Your task to perform on an android device: Add "razer blade" to the cart on costco.com, then select checkout. Image 0: 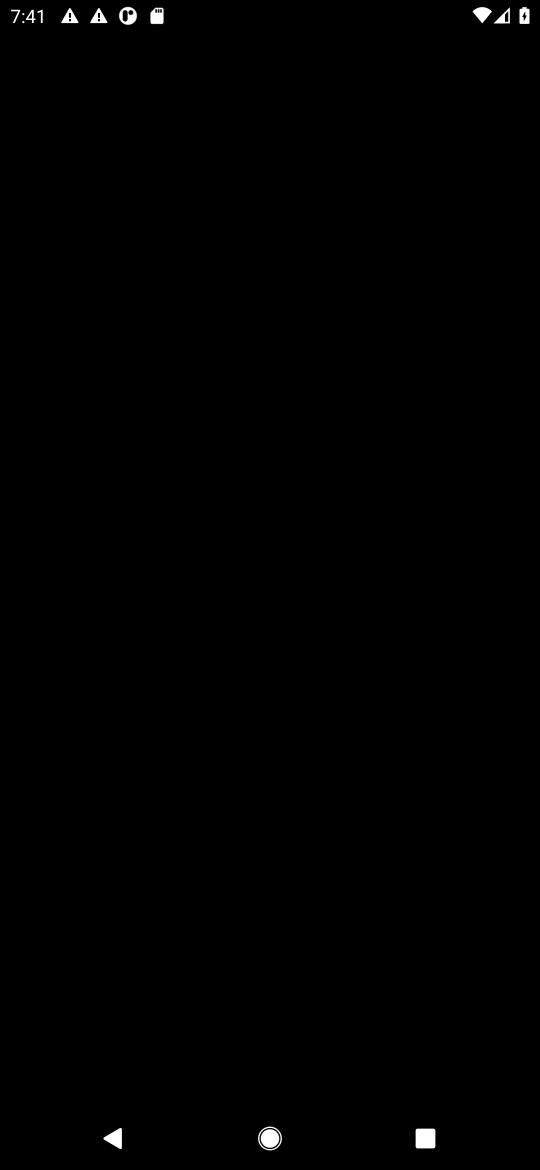
Step 0: press home button
Your task to perform on an android device: Add "razer blade" to the cart on costco.com, then select checkout. Image 1: 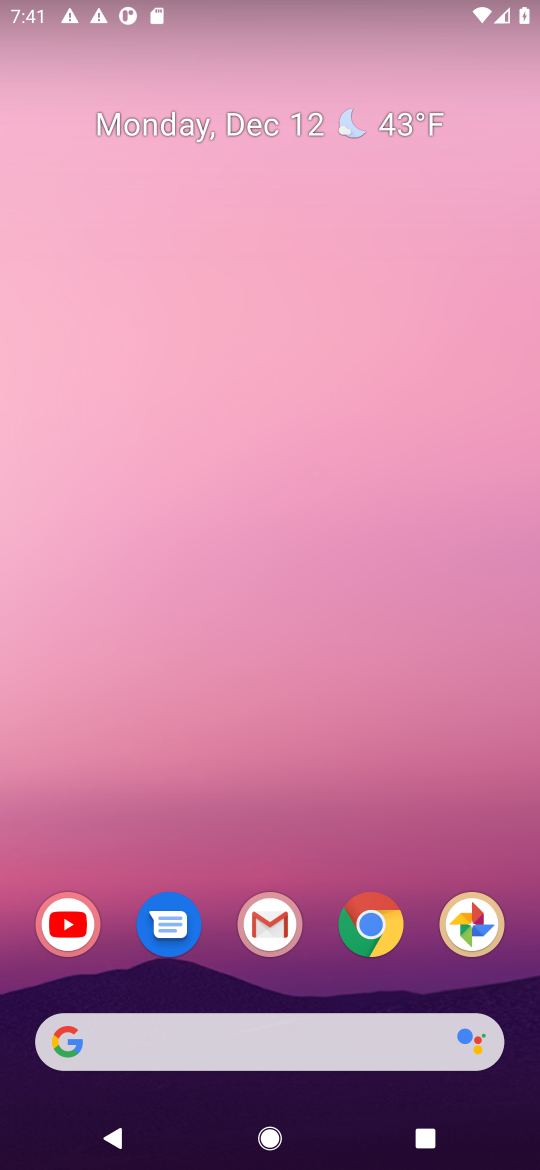
Step 1: drag from (259, 920) to (262, 379)
Your task to perform on an android device: Add "razer blade" to the cart on costco.com, then select checkout. Image 2: 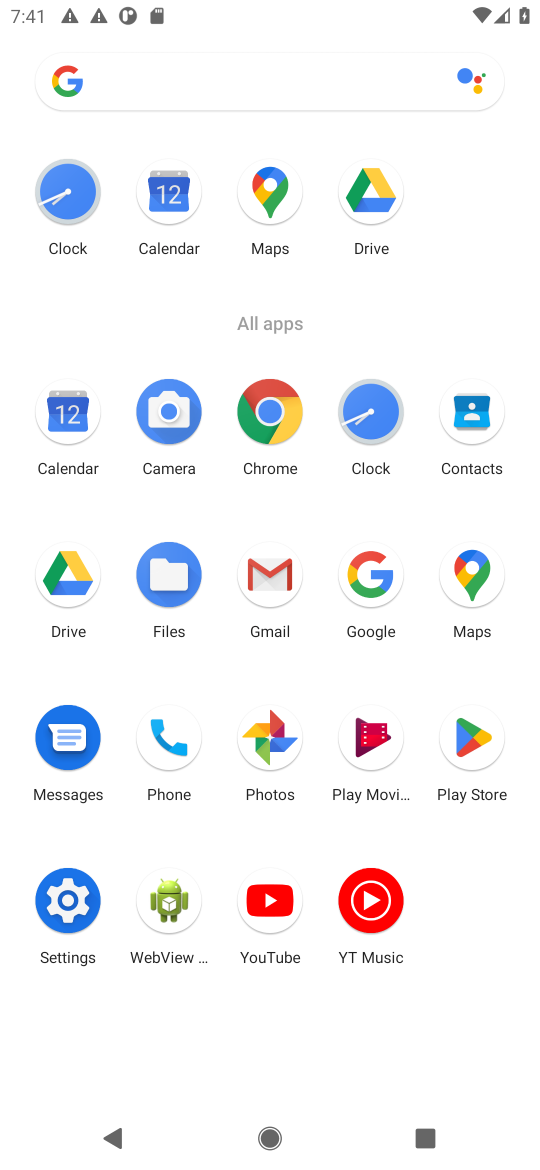
Step 2: click (375, 594)
Your task to perform on an android device: Add "razer blade" to the cart on costco.com, then select checkout. Image 3: 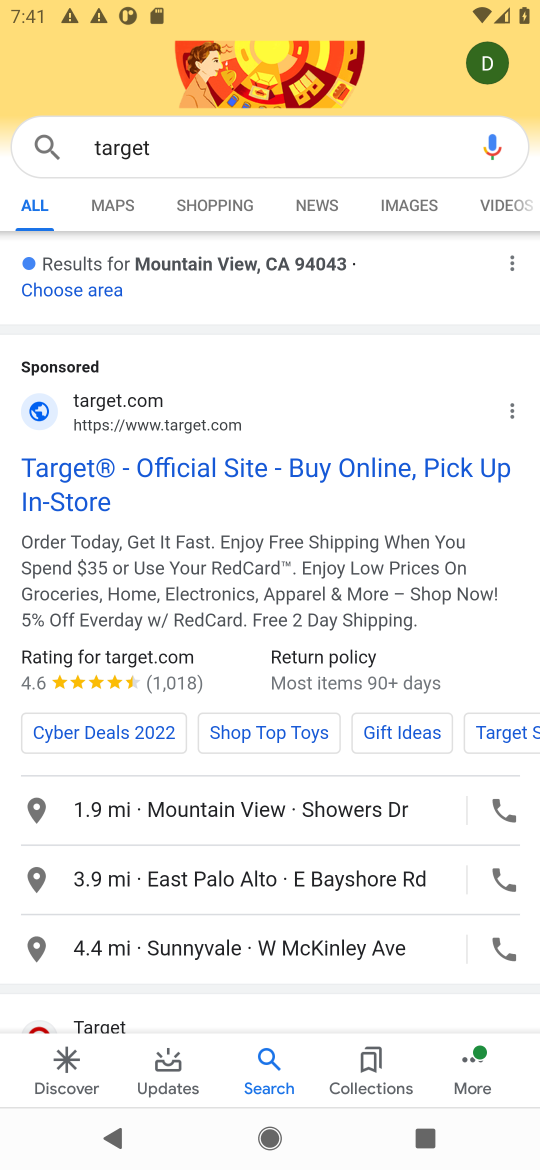
Step 3: click (348, 151)
Your task to perform on an android device: Add "razer blade" to the cart on costco.com, then select checkout. Image 4: 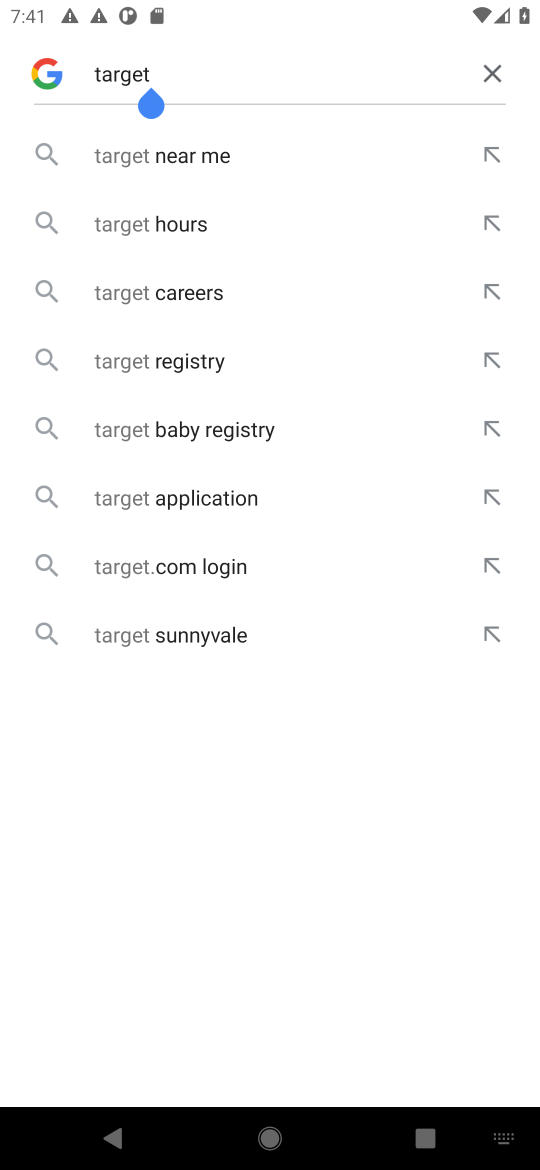
Step 4: click (499, 76)
Your task to perform on an android device: Add "razer blade" to the cart on costco.com, then select checkout. Image 5: 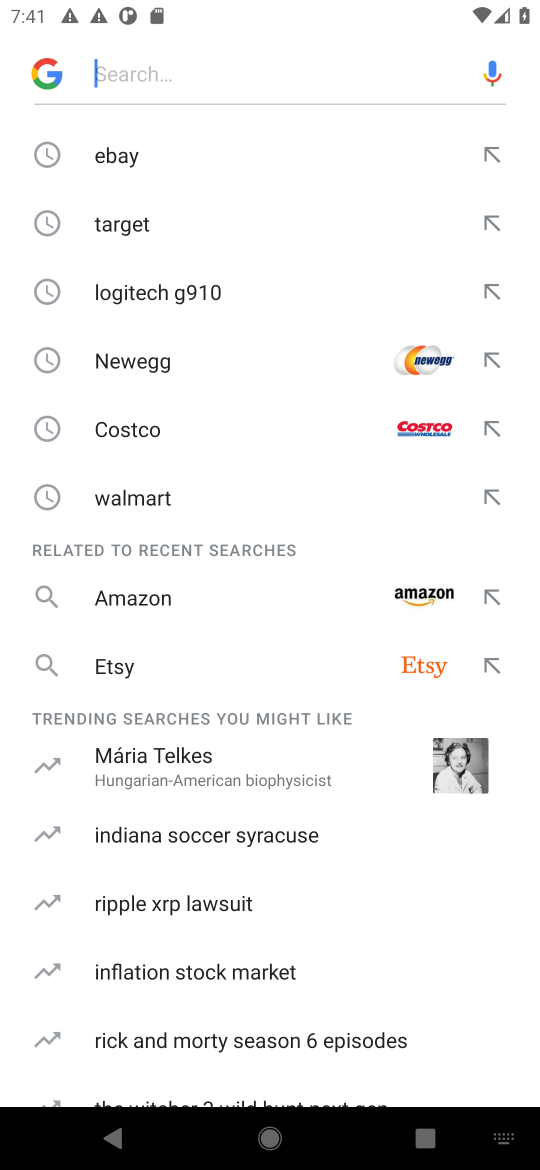
Step 5: type "costco.com,"
Your task to perform on an android device: Add "razer blade" to the cart on costco.com, then select checkout. Image 6: 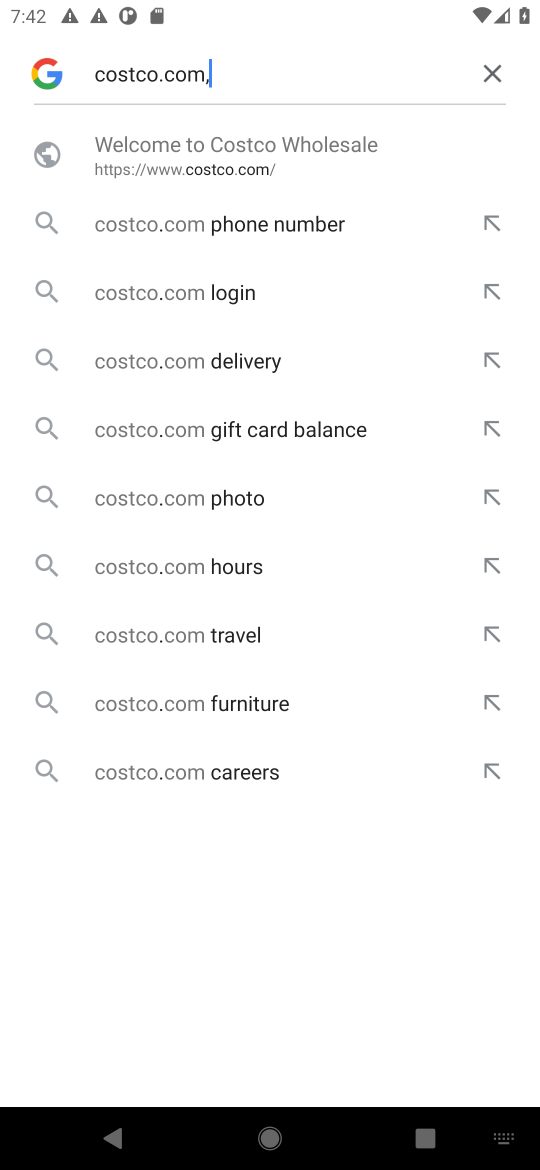
Step 6: click (152, 169)
Your task to perform on an android device: Add "razer blade" to the cart on costco.com, then select checkout. Image 7: 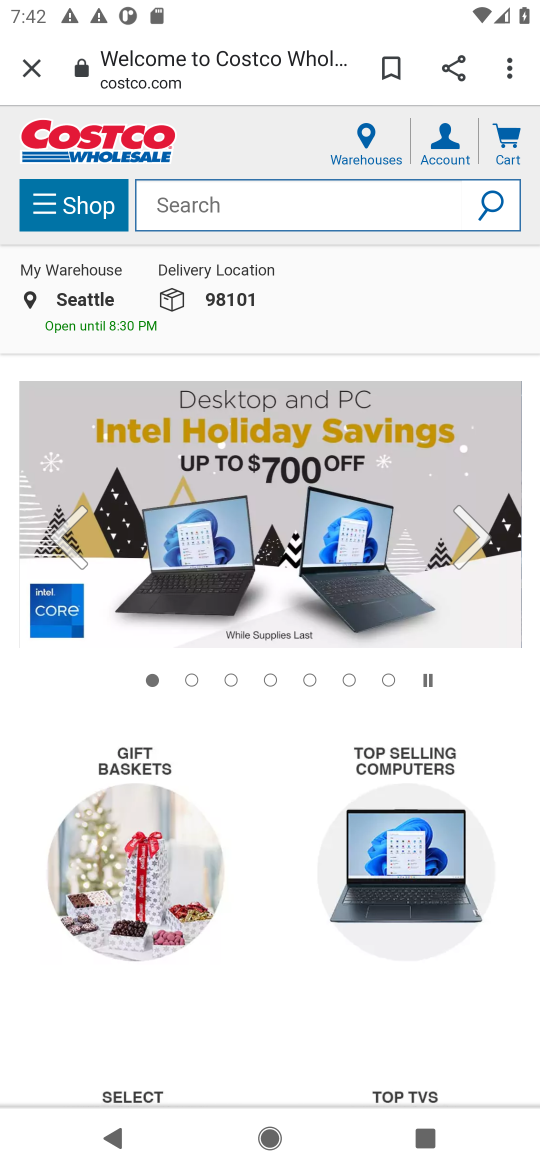
Step 7: click (347, 205)
Your task to perform on an android device: Add "razer blade" to the cart on costco.com, then select checkout. Image 8: 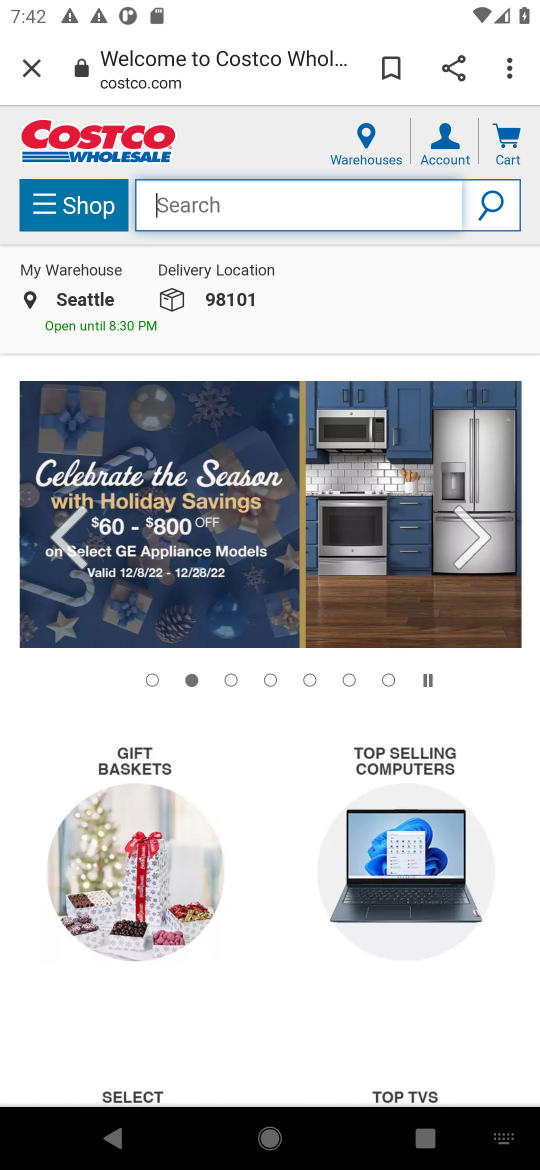
Step 8: type "razer blade"
Your task to perform on an android device: Add "razer blade" to the cart on costco.com, then select checkout. Image 9: 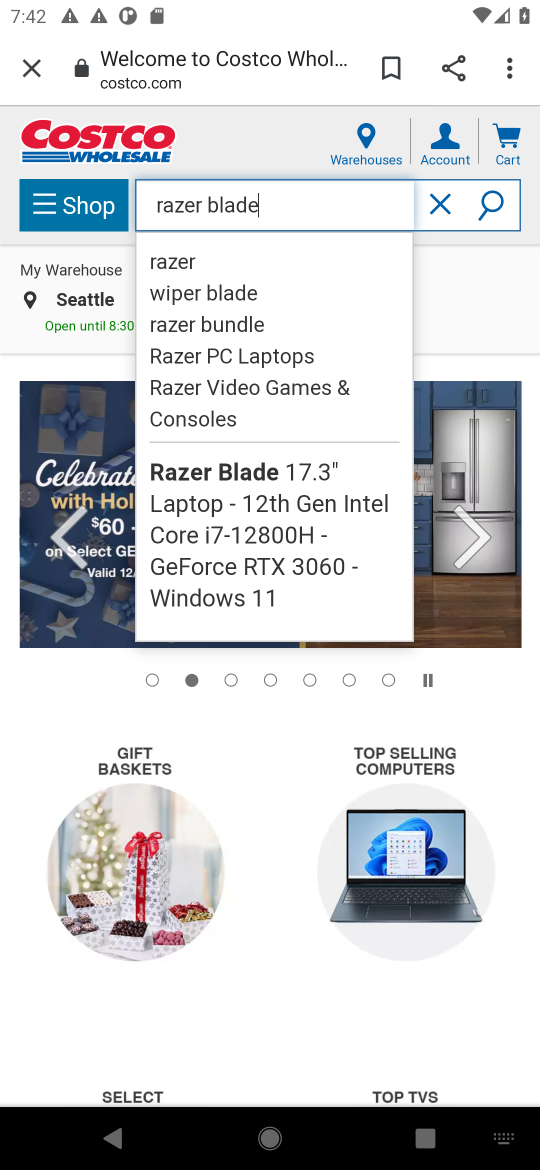
Step 9: click (498, 190)
Your task to perform on an android device: Add "razer blade" to the cart on costco.com, then select checkout. Image 10: 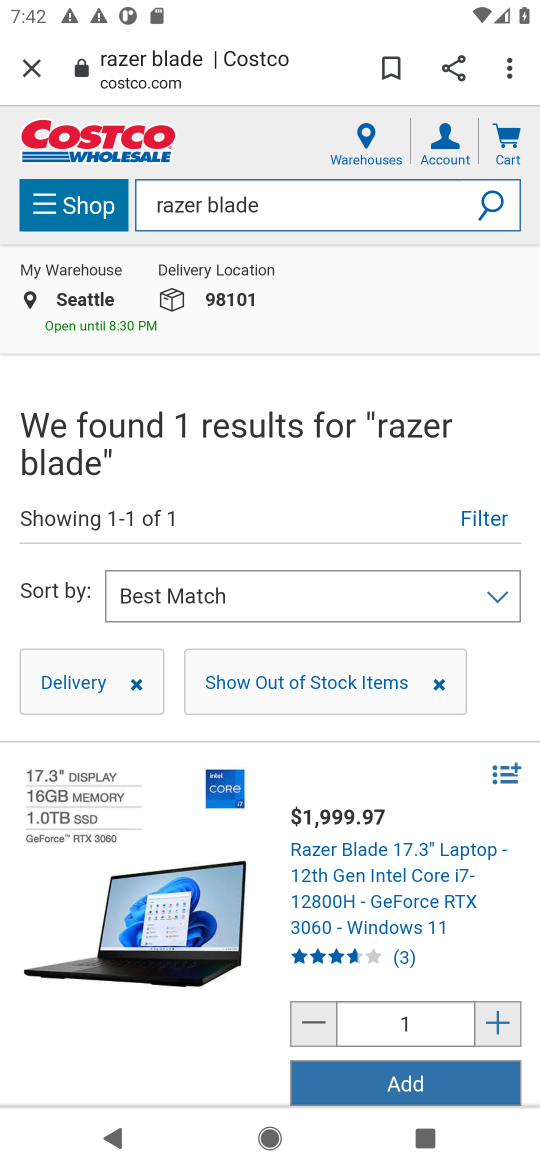
Step 10: click (416, 1090)
Your task to perform on an android device: Add "razer blade" to the cart on costco.com, then select checkout. Image 11: 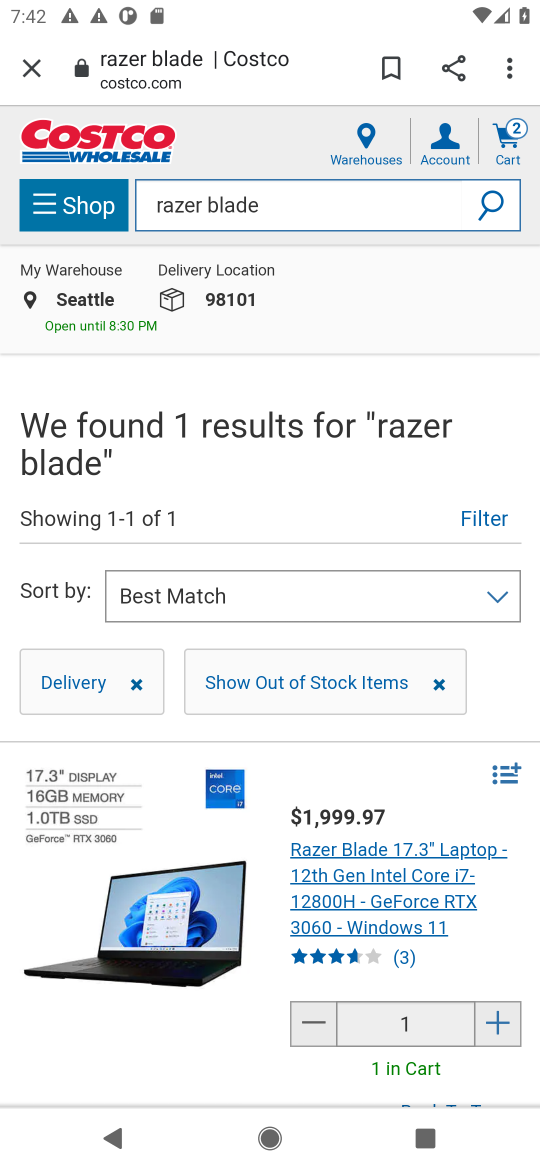
Step 11: click (378, 1065)
Your task to perform on an android device: Add "razer blade" to the cart on costco.com, then select checkout. Image 12: 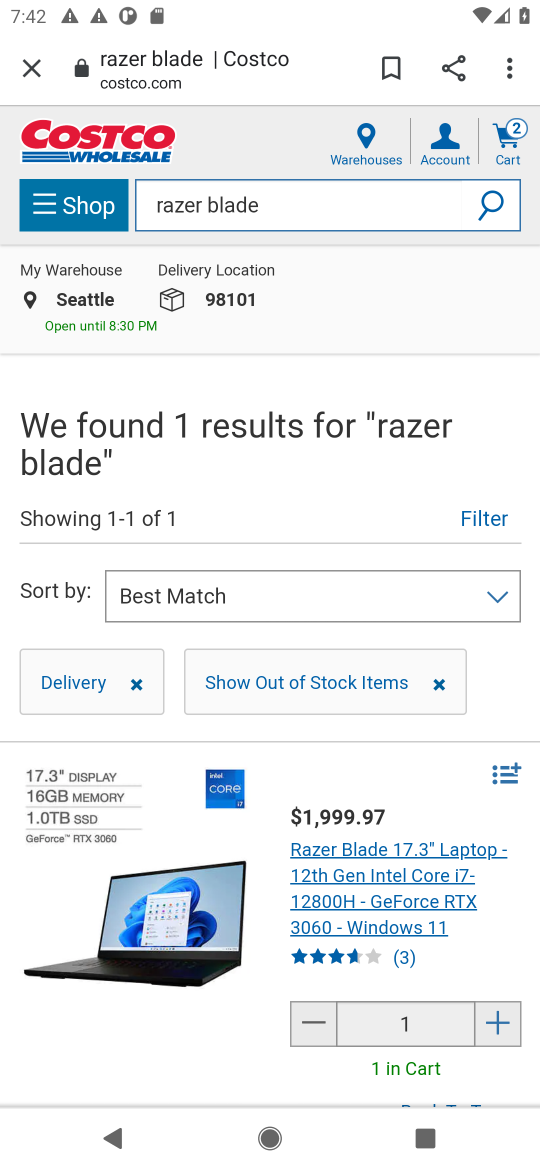
Step 12: click (506, 143)
Your task to perform on an android device: Add "razer blade" to the cart on costco.com, then select checkout. Image 13: 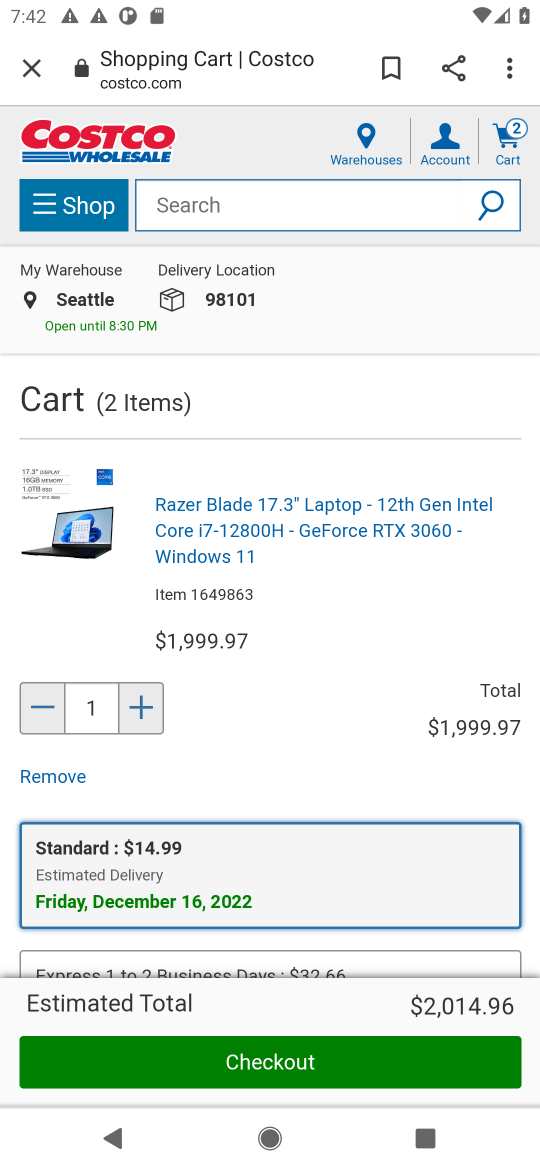
Step 13: click (262, 1070)
Your task to perform on an android device: Add "razer blade" to the cart on costco.com, then select checkout. Image 14: 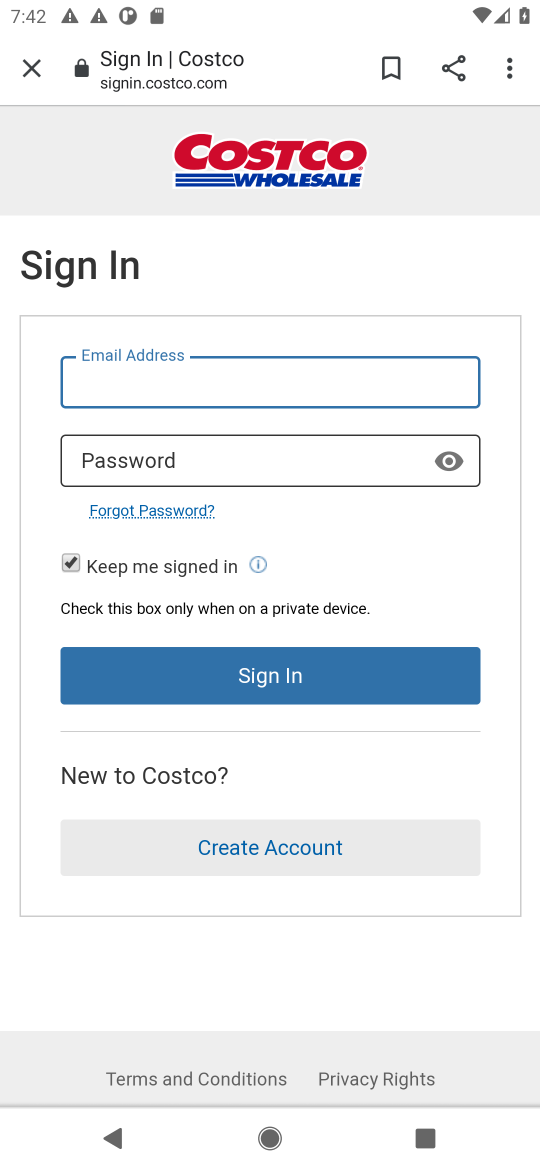
Step 14: task complete